Your task to perform on an android device: toggle wifi Image 0: 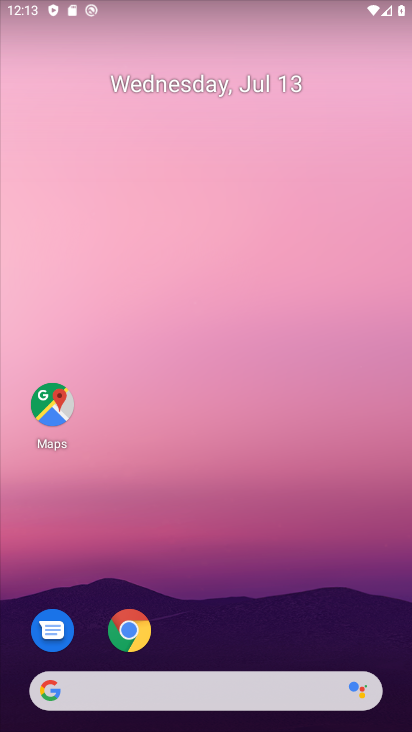
Step 0: press home button
Your task to perform on an android device: toggle wifi Image 1: 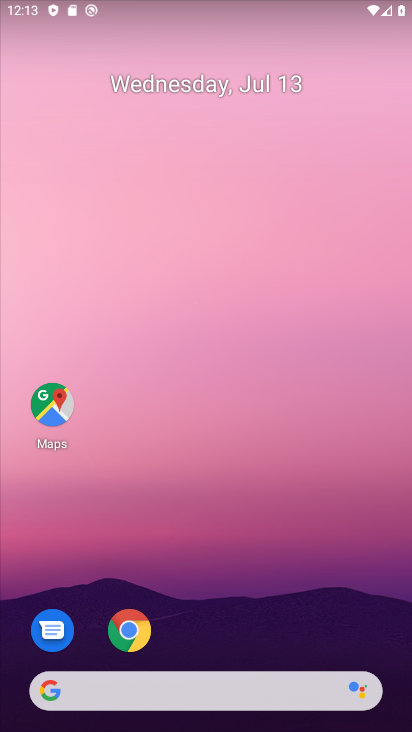
Step 1: drag from (205, 641) to (228, 125)
Your task to perform on an android device: toggle wifi Image 2: 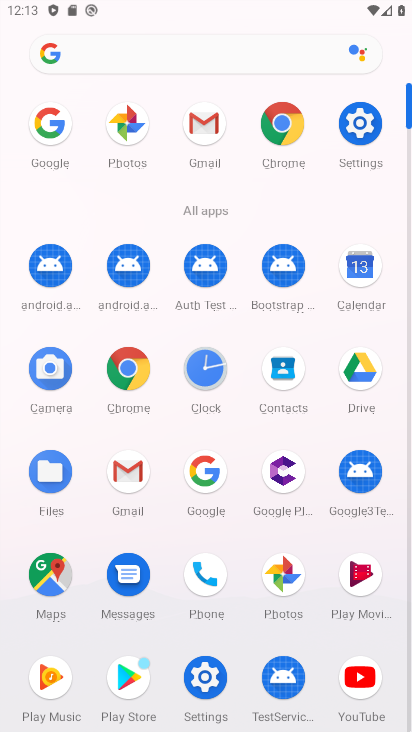
Step 2: click (358, 118)
Your task to perform on an android device: toggle wifi Image 3: 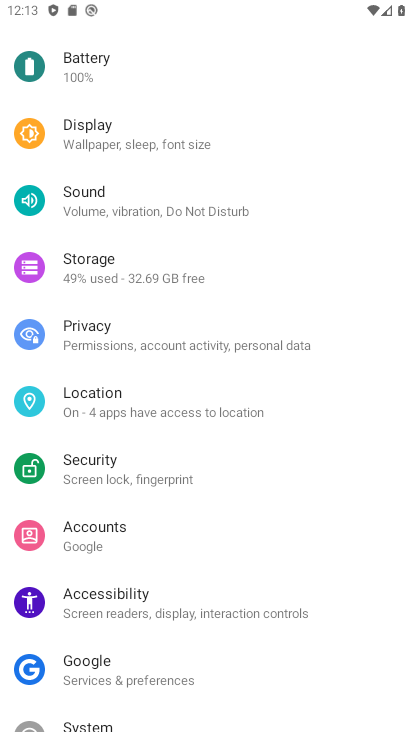
Step 3: drag from (147, 101) to (170, 618)
Your task to perform on an android device: toggle wifi Image 4: 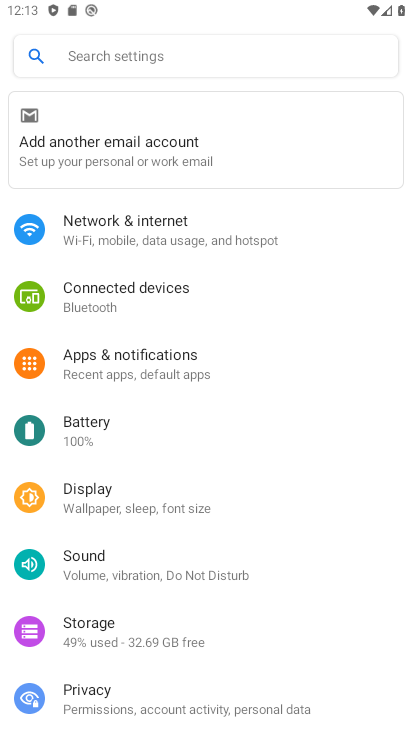
Step 4: click (189, 227)
Your task to perform on an android device: toggle wifi Image 5: 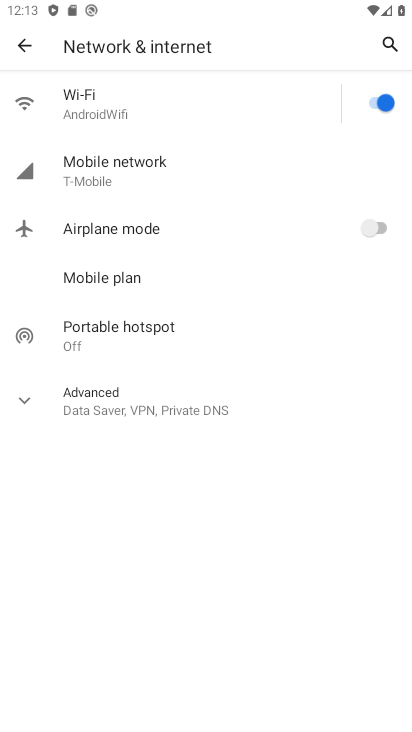
Step 5: click (379, 98)
Your task to perform on an android device: toggle wifi Image 6: 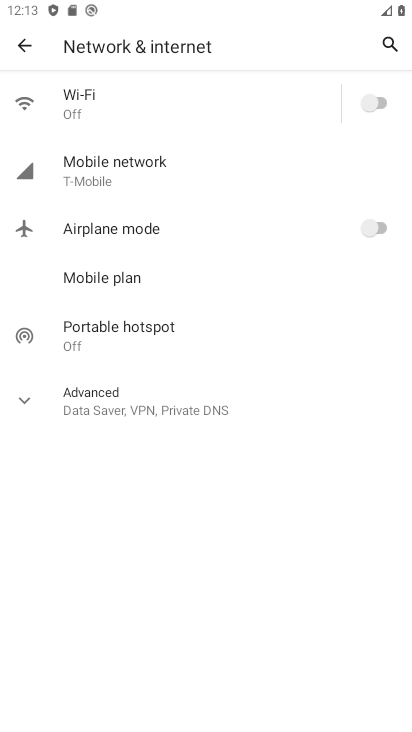
Step 6: task complete